Your task to perform on an android device: Open display settings Image 0: 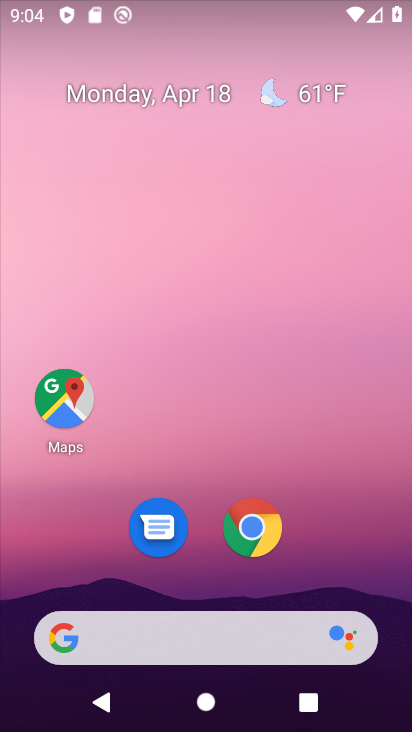
Step 0: drag from (261, 16) to (205, 690)
Your task to perform on an android device: Open display settings Image 1: 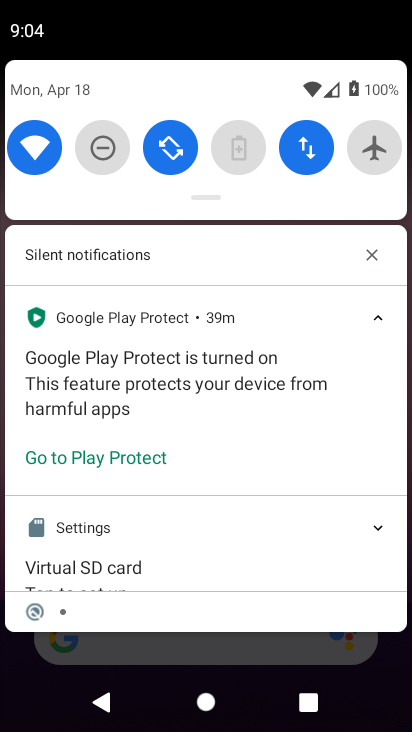
Step 1: drag from (226, 82) to (147, 701)
Your task to perform on an android device: Open display settings Image 2: 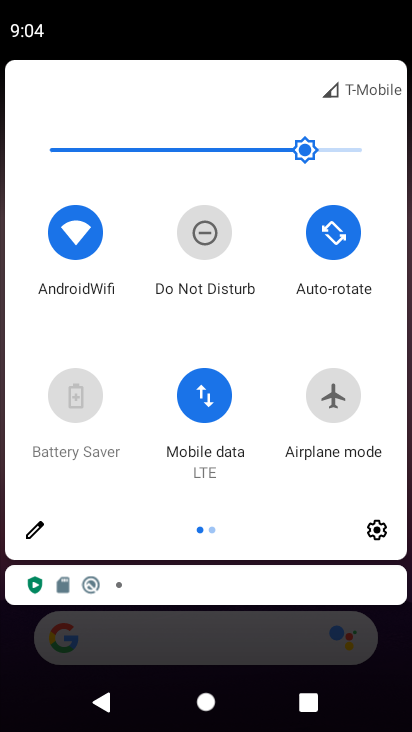
Step 2: click (379, 538)
Your task to perform on an android device: Open display settings Image 3: 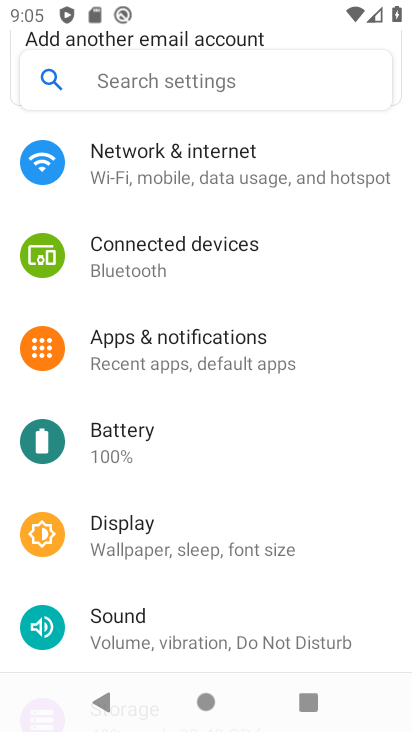
Step 3: click (176, 522)
Your task to perform on an android device: Open display settings Image 4: 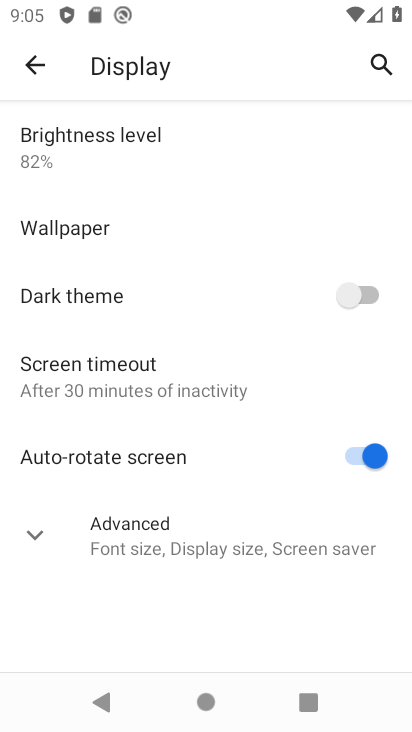
Step 4: task complete